Your task to perform on an android device: What is the recent news? Image 0: 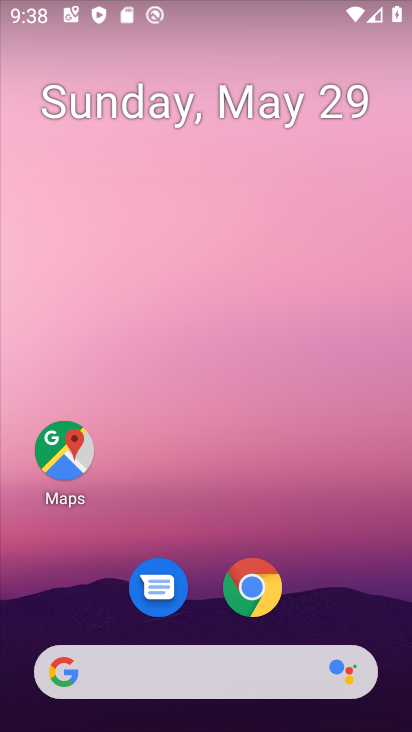
Step 0: click (151, 672)
Your task to perform on an android device: What is the recent news? Image 1: 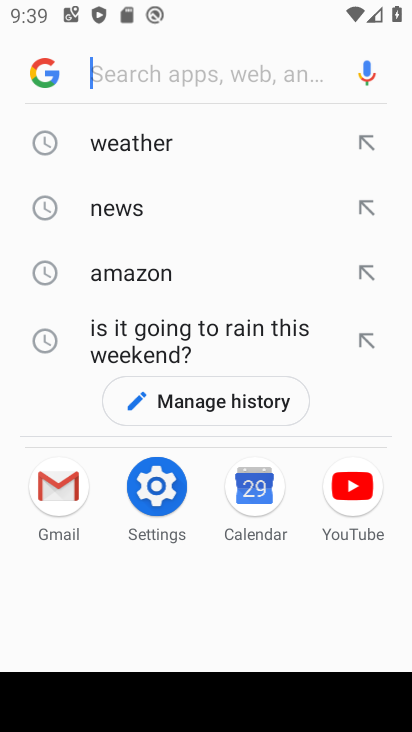
Step 1: type "recent news"
Your task to perform on an android device: What is the recent news? Image 2: 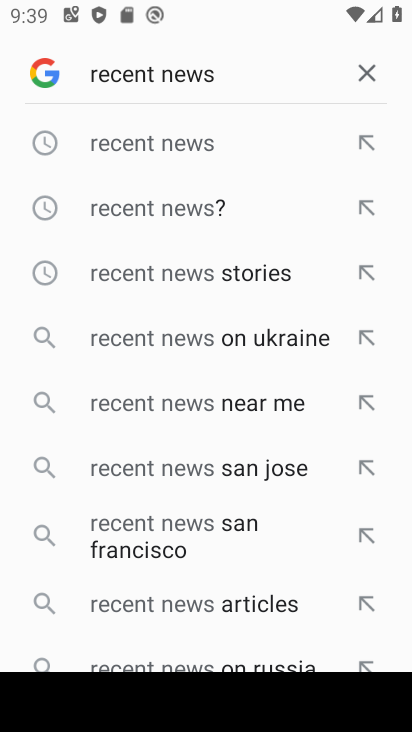
Step 2: click (194, 140)
Your task to perform on an android device: What is the recent news? Image 3: 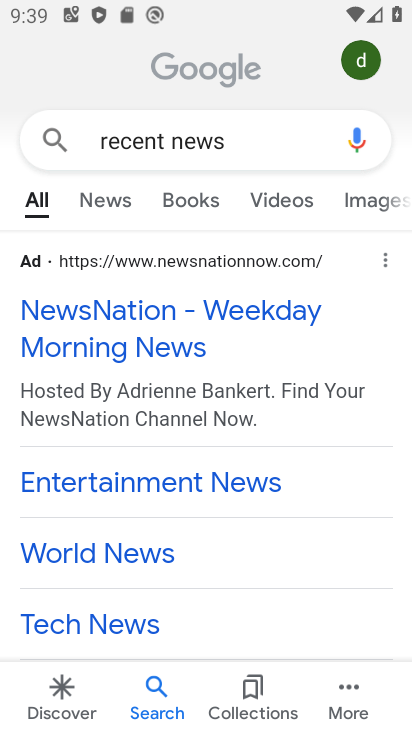
Step 3: task complete